Your task to perform on an android device: Go to privacy settings Image 0: 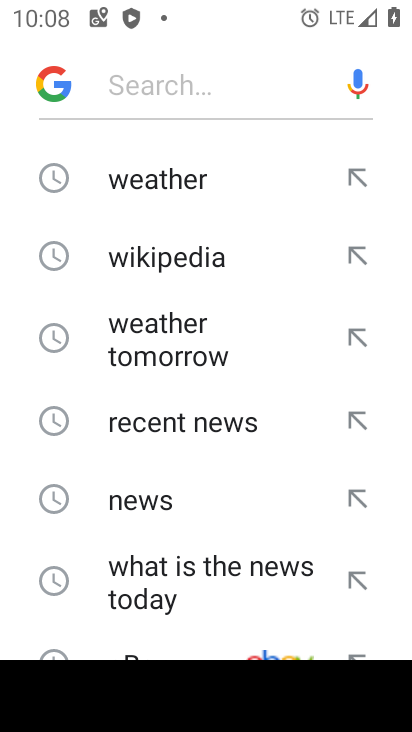
Step 0: press home button
Your task to perform on an android device: Go to privacy settings Image 1: 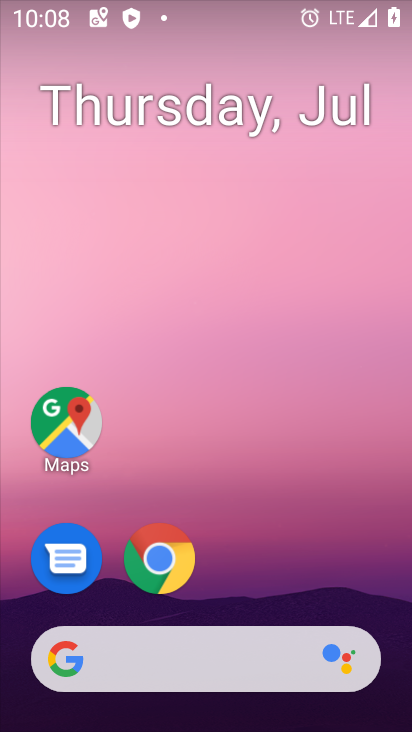
Step 1: drag from (358, 567) to (380, 100)
Your task to perform on an android device: Go to privacy settings Image 2: 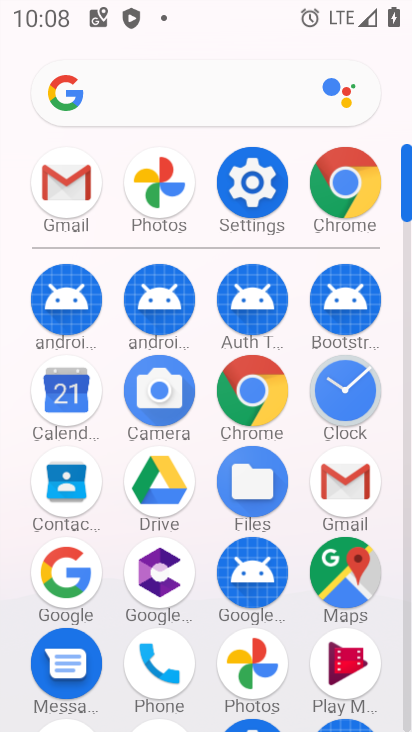
Step 2: click (247, 188)
Your task to perform on an android device: Go to privacy settings Image 3: 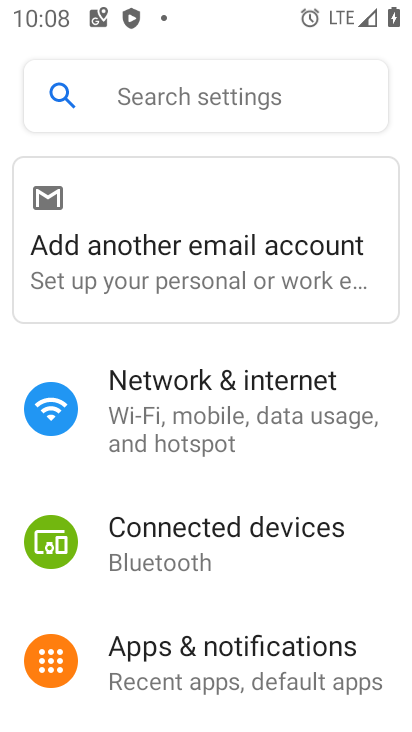
Step 3: drag from (354, 489) to (358, 374)
Your task to perform on an android device: Go to privacy settings Image 4: 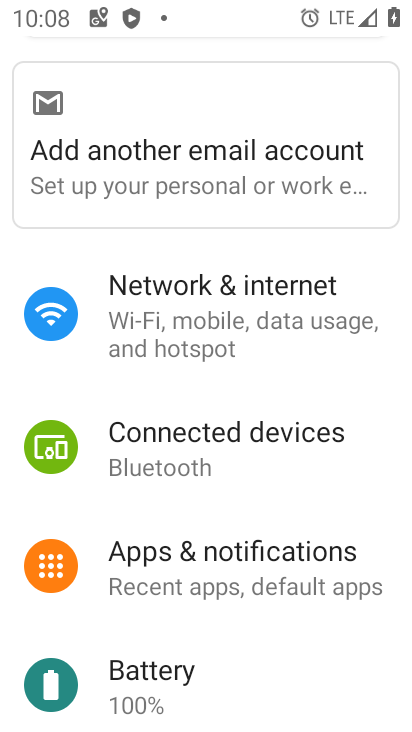
Step 4: drag from (384, 508) to (383, 404)
Your task to perform on an android device: Go to privacy settings Image 5: 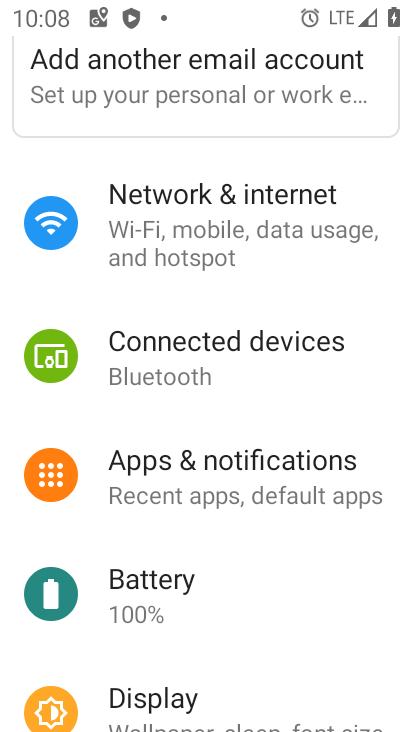
Step 5: drag from (381, 527) to (376, 430)
Your task to perform on an android device: Go to privacy settings Image 6: 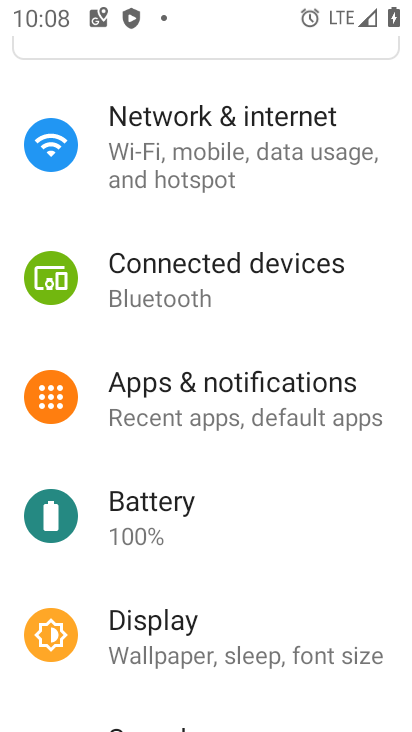
Step 6: drag from (373, 513) to (372, 419)
Your task to perform on an android device: Go to privacy settings Image 7: 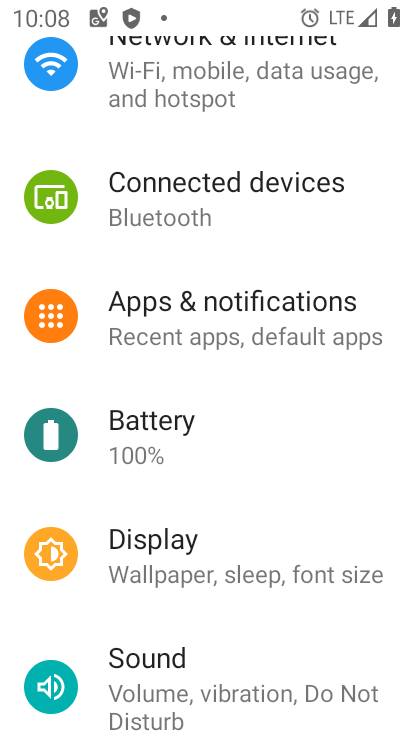
Step 7: drag from (375, 534) to (371, 424)
Your task to perform on an android device: Go to privacy settings Image 8: 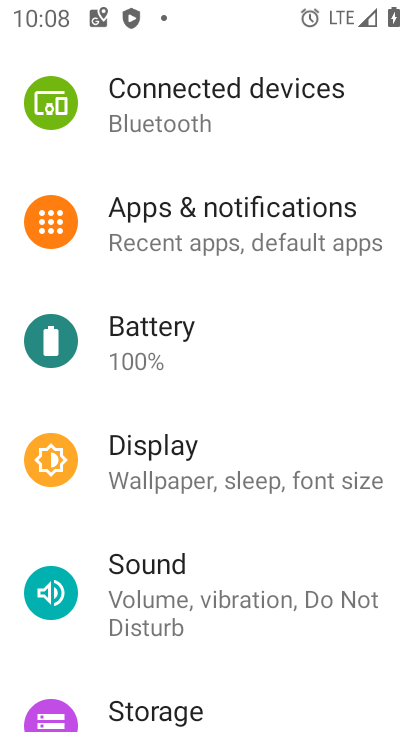
Step 8: drag from (374, 547) to (370, 456)
Your task to perform on an android device: Go to privacy settings Image 9: 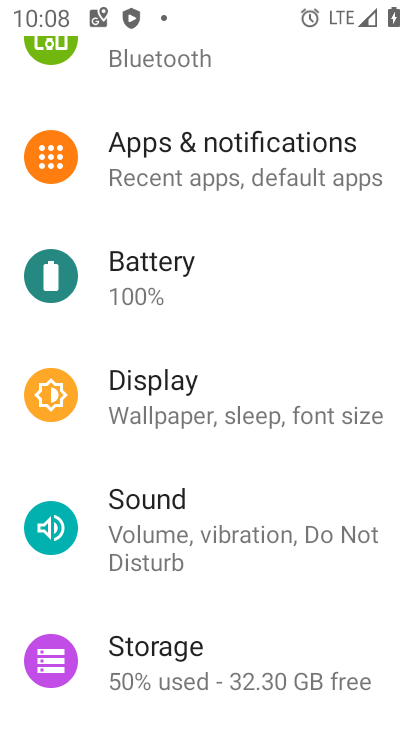
Step 9: drag from (376, 573) to (381, 437)
Your task to perform on an android device: Go to privacy settings Image 10: 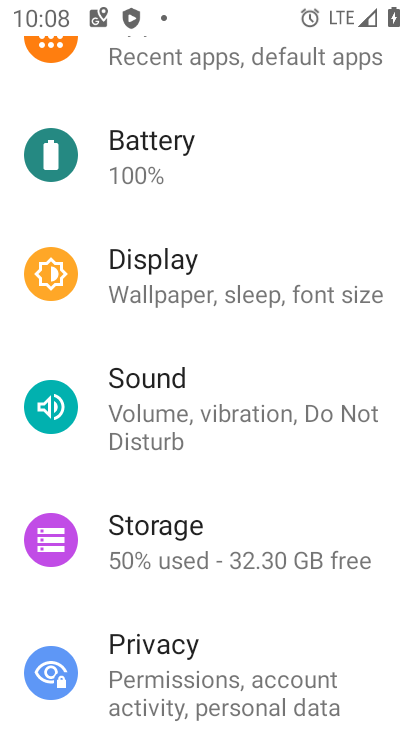
Step 10: drag from (375, 570) to (377, 479)
Your task to perform on an android device: Go to privacy settings Image 11: 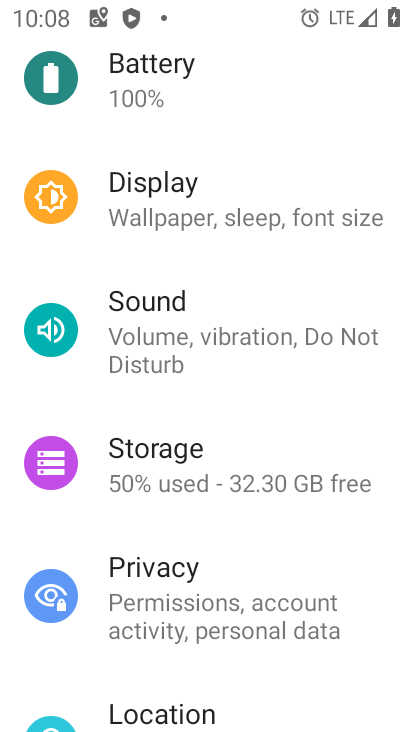
Step 11: drag from (377, 549) to (374, 450)
Your task to perform on an android device: Go to privacy settings Image 12: 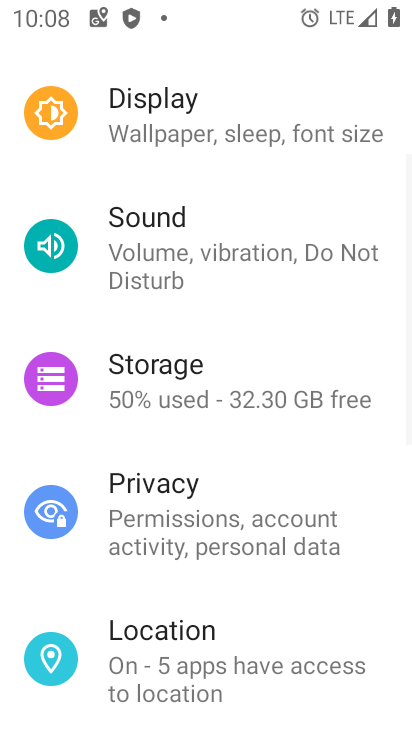
Step 12: drag from (369, 571) to (378, 464)
Your task to perform on an android device: Go to privacy settings Image 13: 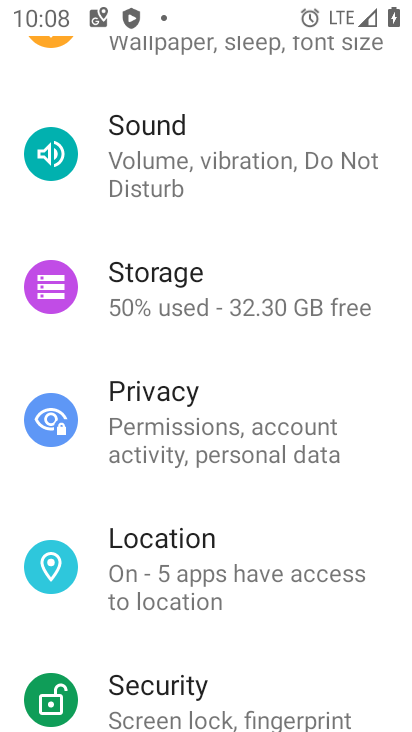
Step 13: drag from (364, 575) to (372, 462)
Your task to perform on an android device: Go to privacy settings Image 14: 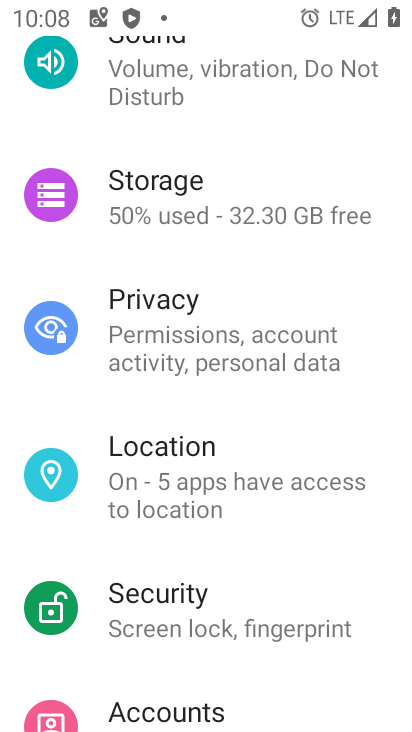
Step 14: click (320, 354)
Your task to perform on an android device: Go to privacy settings Image 15: 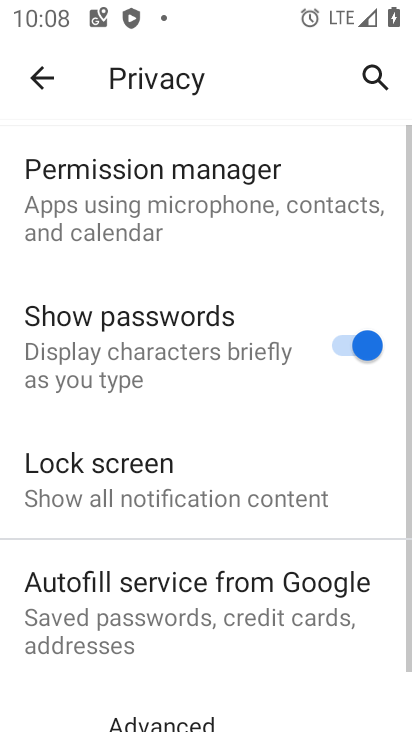
Step 15: drag from (325, 598) to (331, 490)
Your task to perform on an android device: Go to privacy settings Image 16: 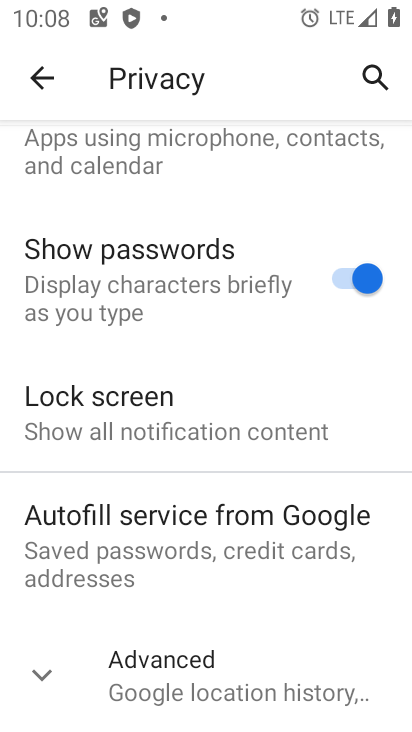
Step 16: click (335, 654)
Your task to perform on an android device: Go to privacy settings Image 17: 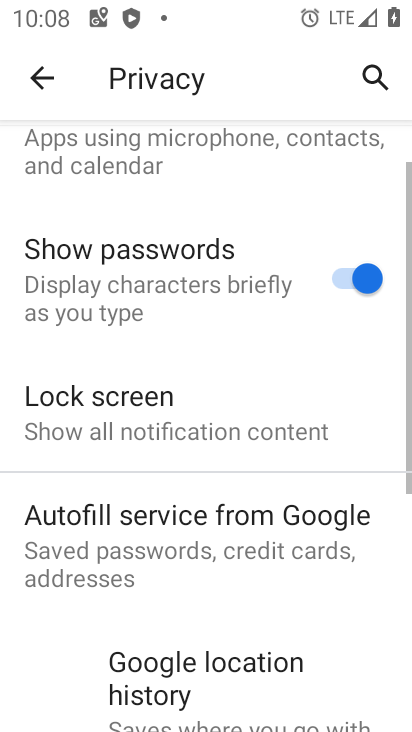
Step 17: task complete